Your task to perform on an android device: toggle sleep mode Image 0: 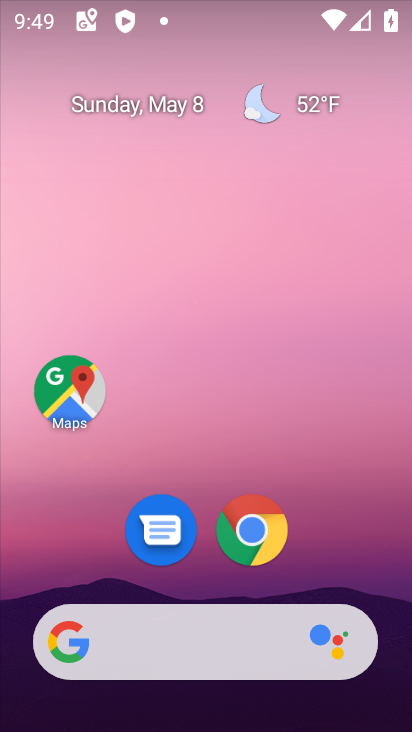
Step 0: drag from (355, 554) to (381, 117)
Your task to perform on an android device: toggle sleep mode Image 1: 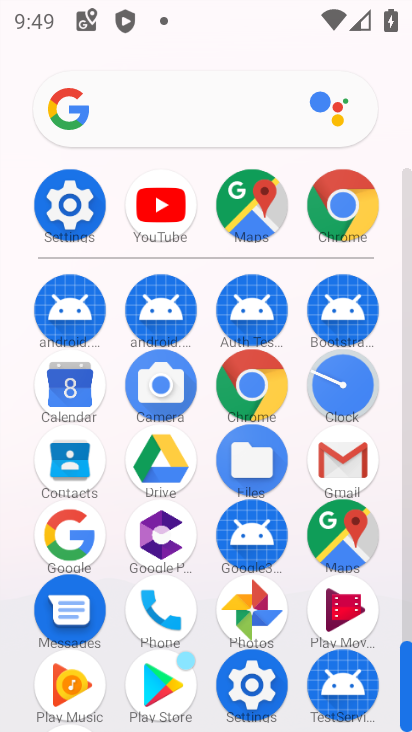
Step 1: click (63, 221)
Your task to perform on an android device: toggle sleep mode Image 2: 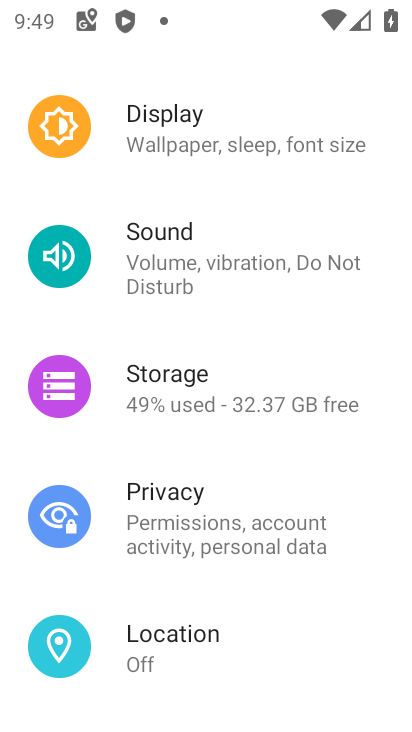
Step 2: drag from (250, 179) to (227, 729)
Your task to perform on an android device: toggle sleep mode Image 3: 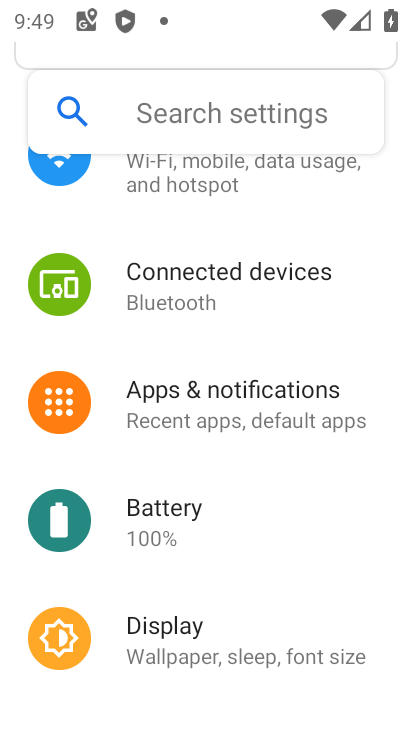
Step 3: click (226, 105)
Your task to perform on an android device: toggle sleep mode Image 4: 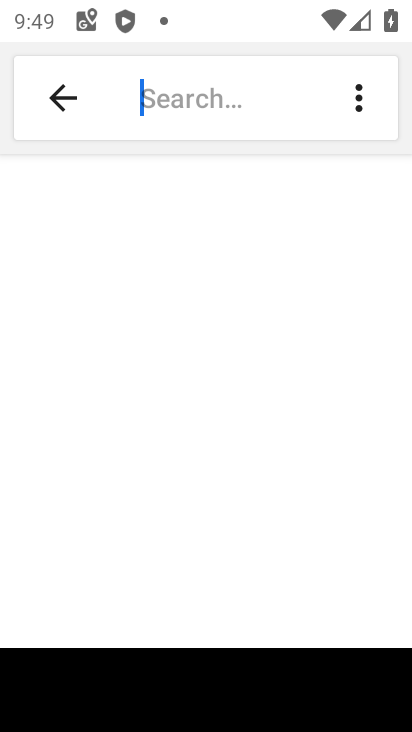
Step 4: type ""
Your task to perform on an android device: toggle sleep mode Image 5: 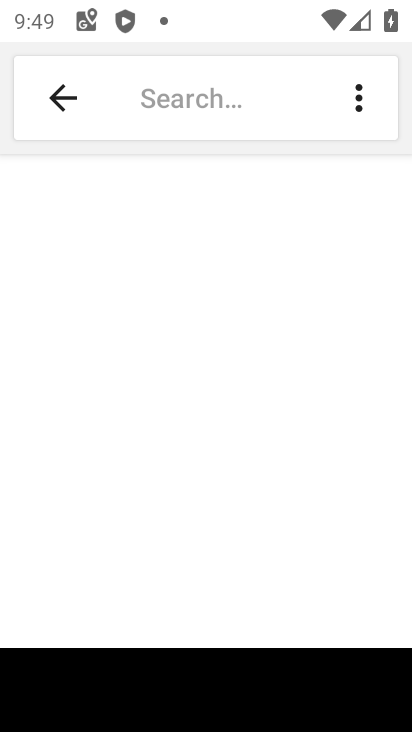
Step 5: type "sleep mode"
Your task to perform on an android device: toggle sleep mode Image 6: 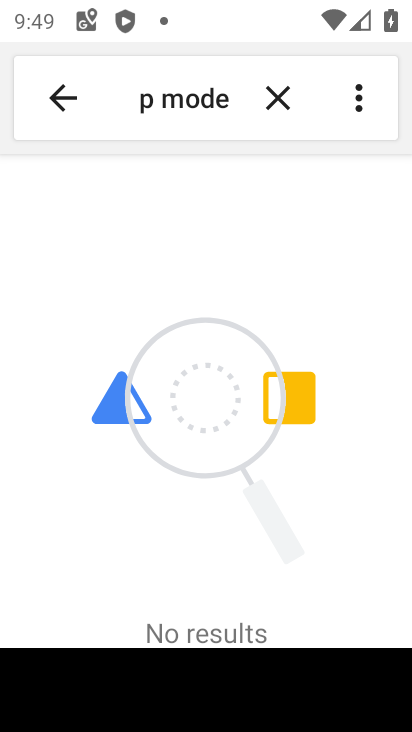
Step 6: task complete